Your task to perform on an android device: turn on the 24-hour format for clock Image 0: 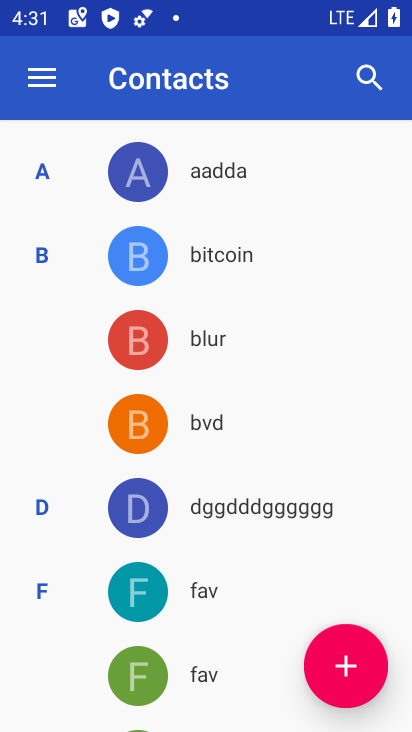
Step 0: press home button
Your task to perform on an android device: turn on the 24-hour format for clock Image 1: 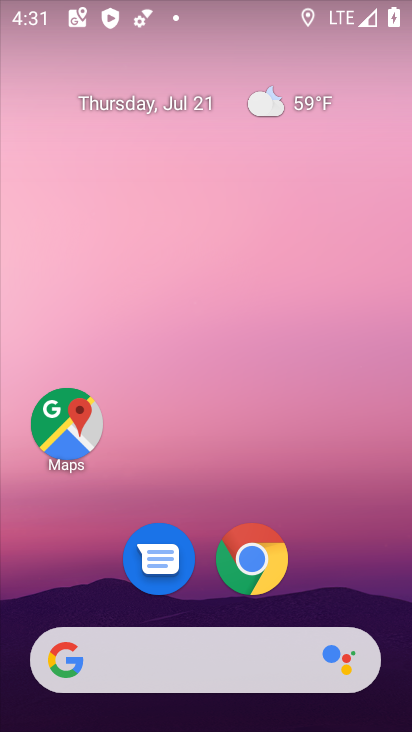
Step 1: drag from (114, 597) to (240, 25)
Your task to perform on an android device: turn on the 24-hour format for clock Image 2: 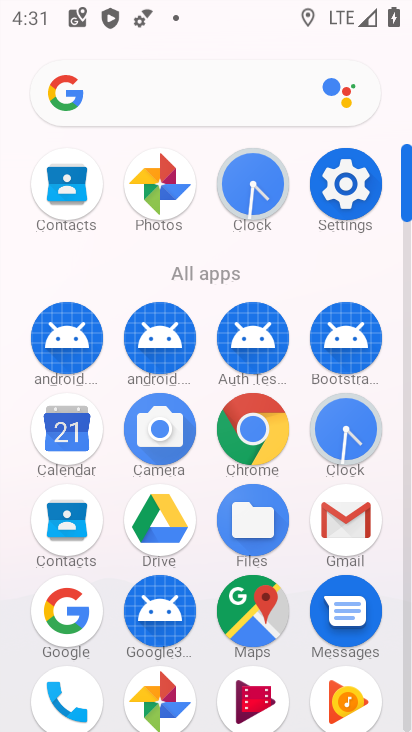
Step 2: click (338, 428)
Your task to perform on an android device: turn on the 24-hour format for clock Image 3: 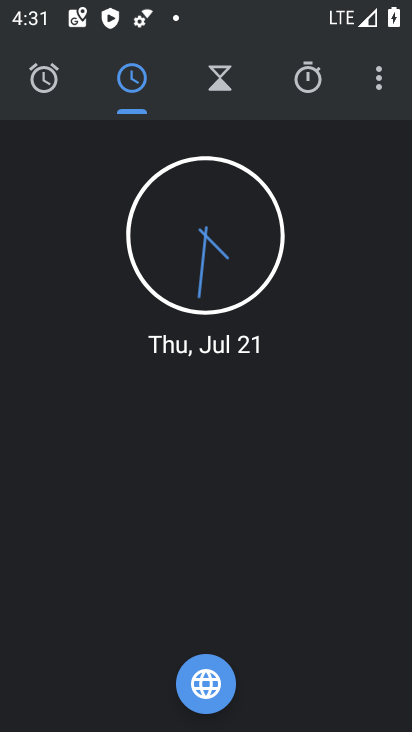
Step 3: click (376, 77)
Your task to perform on an android device: turn on the 24-hour format for clock Image 4: 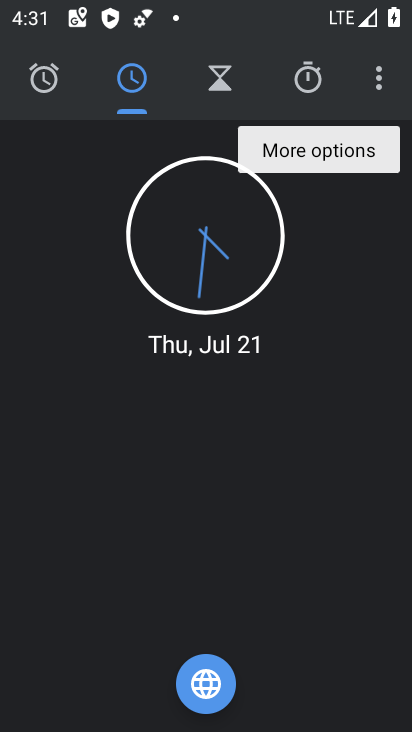
Step 4: click (376, 77)
Your task to perform on an android device: turn on the 24-hour format for clock Image 5: 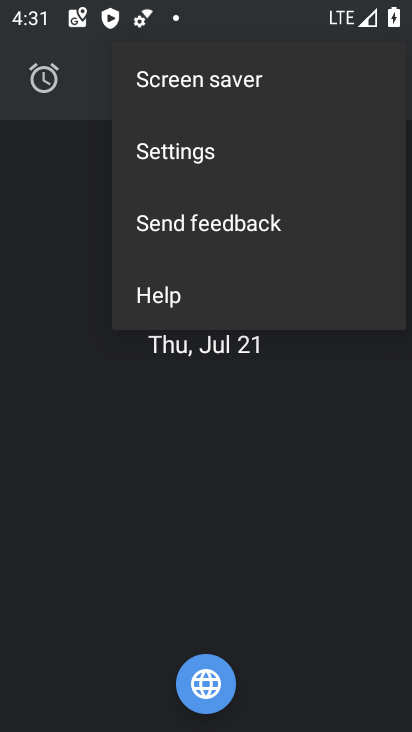
Step 5: click (194, 145)
Your task to perform on an android device: turn on the 24-hour format for clock Image 6: 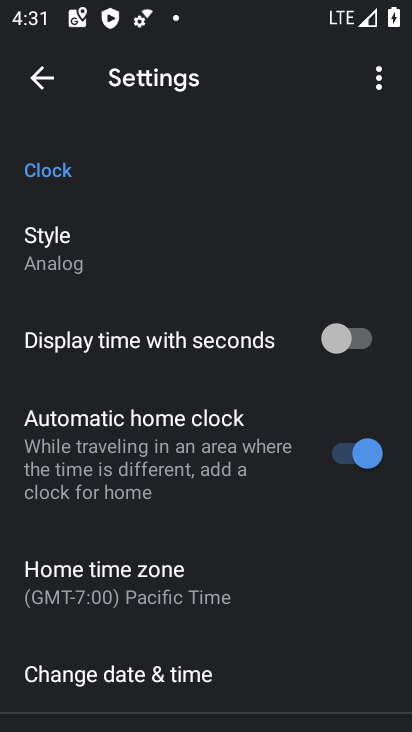
Step 6: click (139, 688)
Your task to perform on an android device: turn on the 24-hour format for clock Image 7: 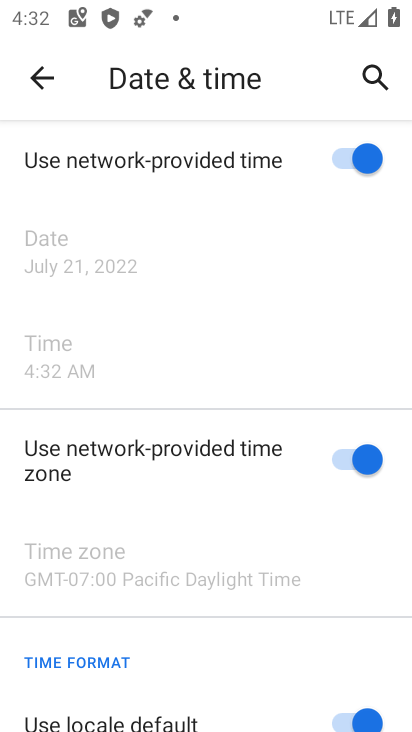
Step 7: drag from (172, 658) to (264, 49)
Your task to perform on an android device: turn on the 24-hour format for clock Image 8: 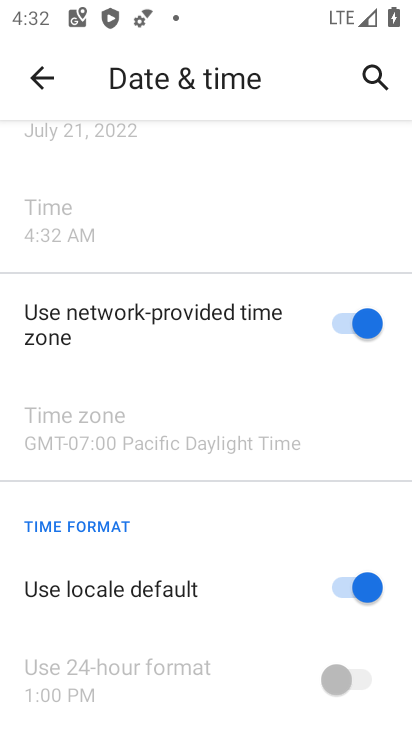
Step 8: click (369, 594)
Your task to perform on an android device: turn on the 24-hour format for clock Image 9: 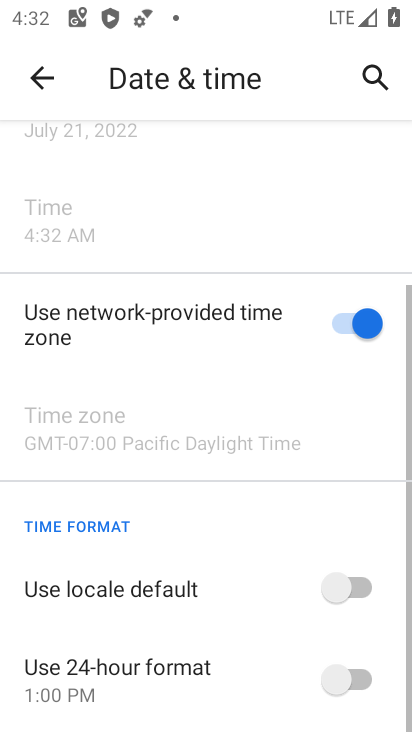
Step 9: click (340, 675)
Your task to perform on an android device: turn on the 24-hour format for clock Image 10: 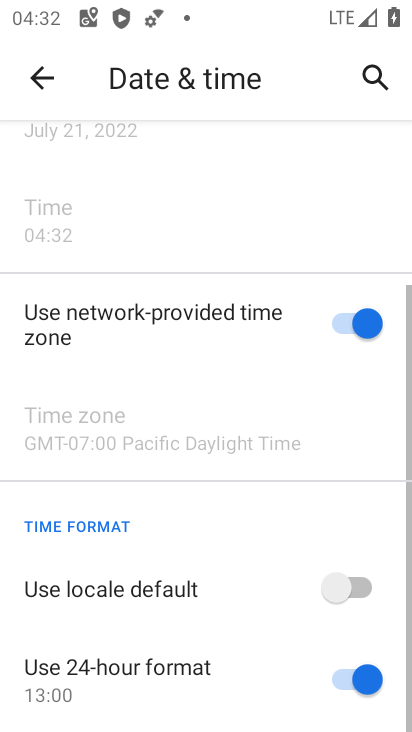
Step 10: task complete